Your task to perform on an android device: turn on translation in the chrome app Image 0: 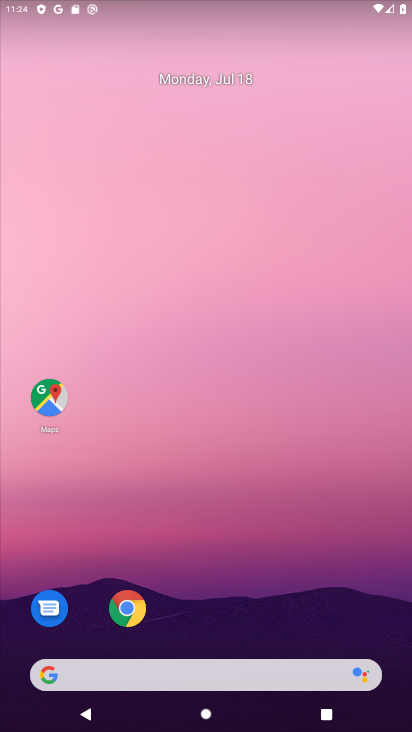
Step 0: click (126, 598)
Your task to perform on an android device: turn on translation in the chrome app Image 1: 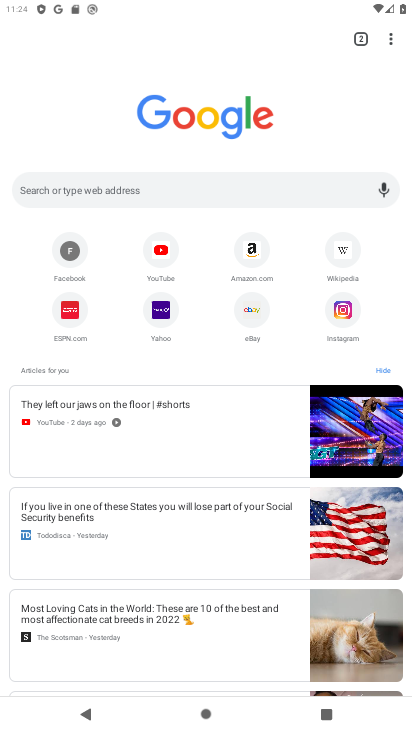
Step 1: click (385, 46)
Your task to perform on an android device: turn on translation in the chrome app Image 2: 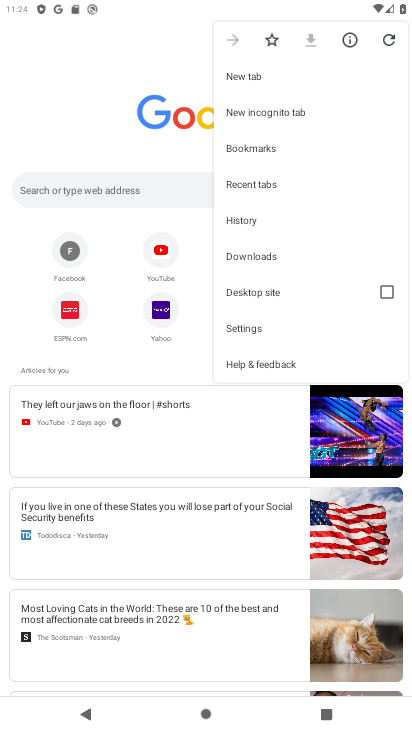
Step 2: click (249, 334)
Your task to perform on an android device: turn on translation in the chrome app Image 3: 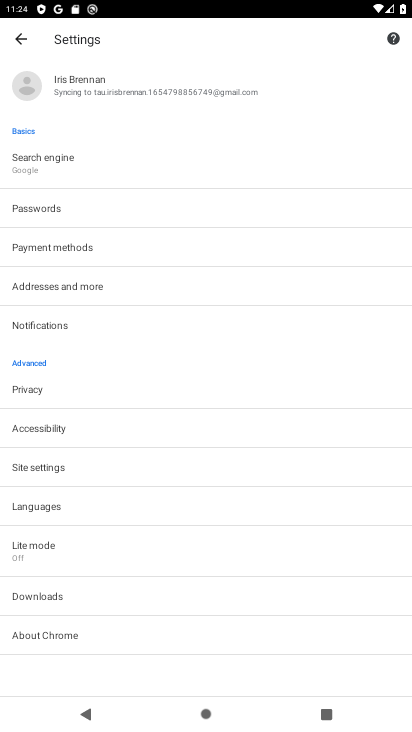
Step 3: click (71, 509)
Your task to perform on an android device: turn on translation in the chrome app Image 4: 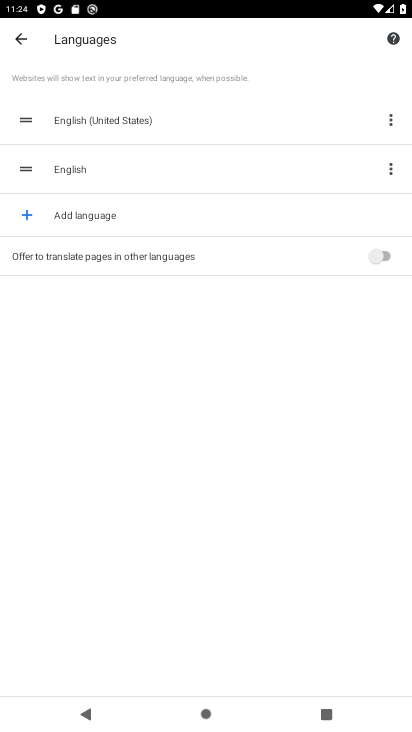
Step 4: click (380, 264)
Your task to perform on an android device: turn on translation in the chrome app Image 5: 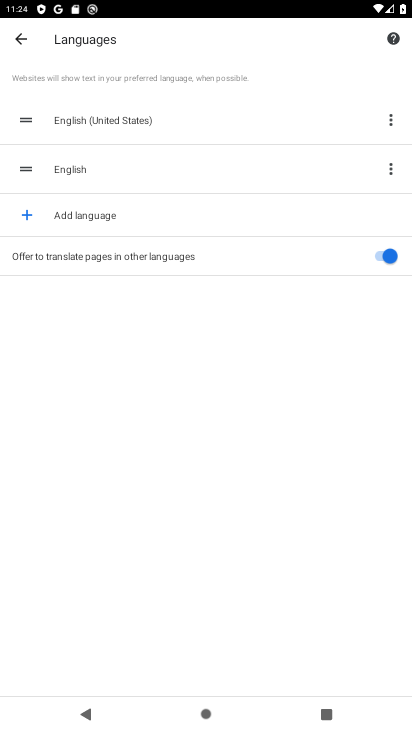
Step 5: task complete